Your task to perform on an android device: delete the emails in spam in the gmail app Image 0: 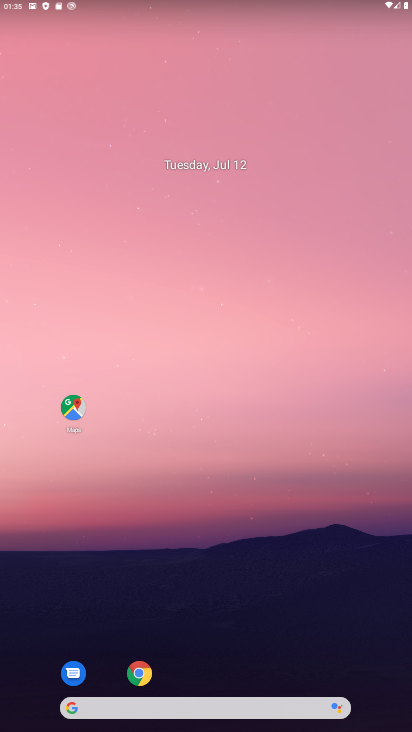
Step 0: press home button
Your task to perform on an android device: delete the emails in spam in the gmail app Image 1: 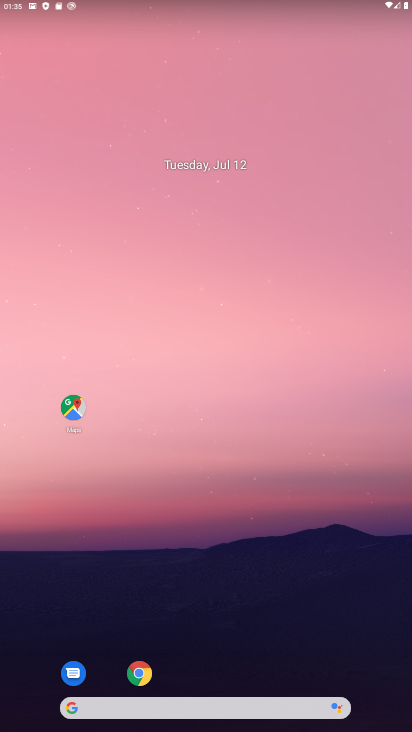
Step 1: drag from (232, 538) to (289, 23)
Your task to perform on an android device: delete the emails in spam in the gmail app Image 2: 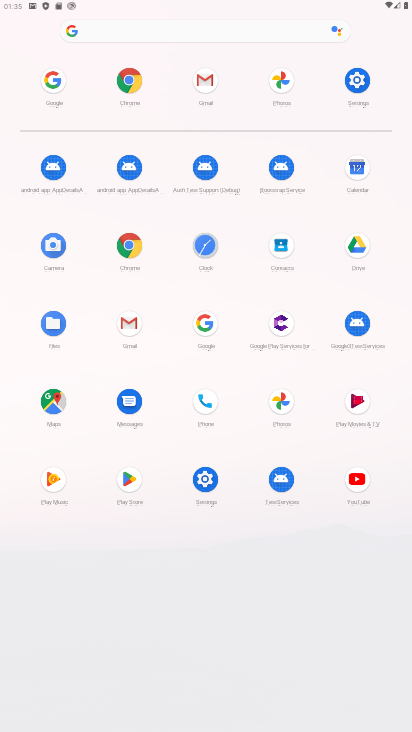
Step 2: click (206, 80)
Your task to perform on an android device: delete the emails in spam in the gmail app Image 3: 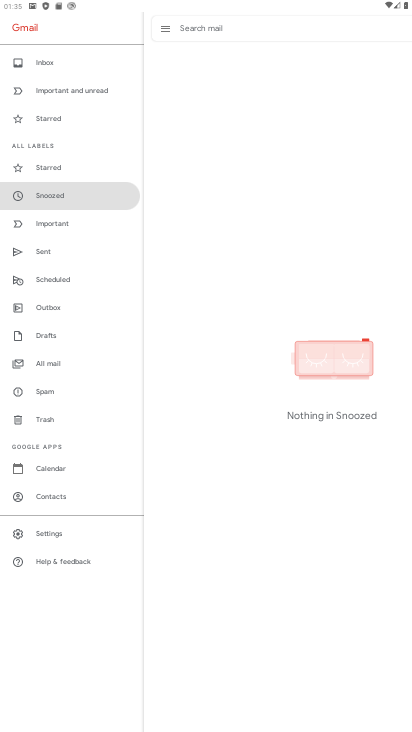
Step 3: click (42, 390)
Your task to perform on an android device: delete the emails in spam in the gmail app Image 4: 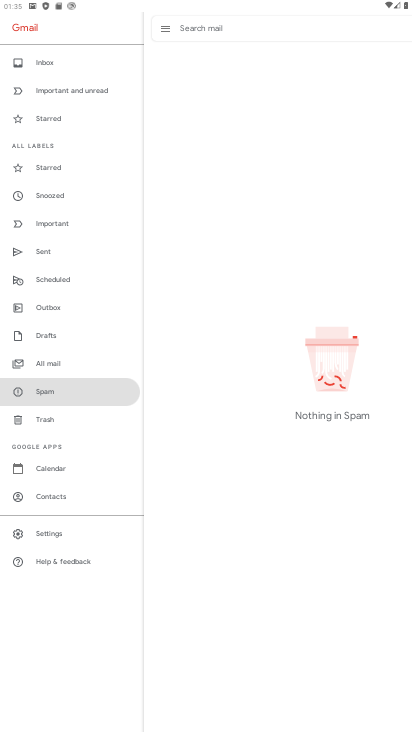
Step 4: task complete